Your task to perform on an android device: turn off picture-in-picture Image 0: 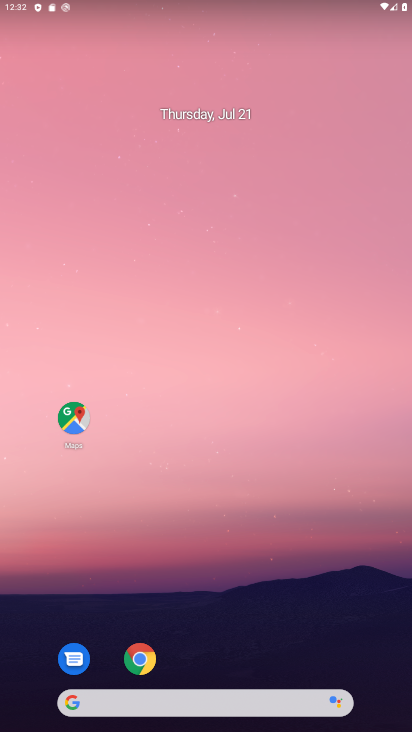
Step 0: click (138, 656)
Your task to perform on an android device: turn off picture-in-picture Image 1: 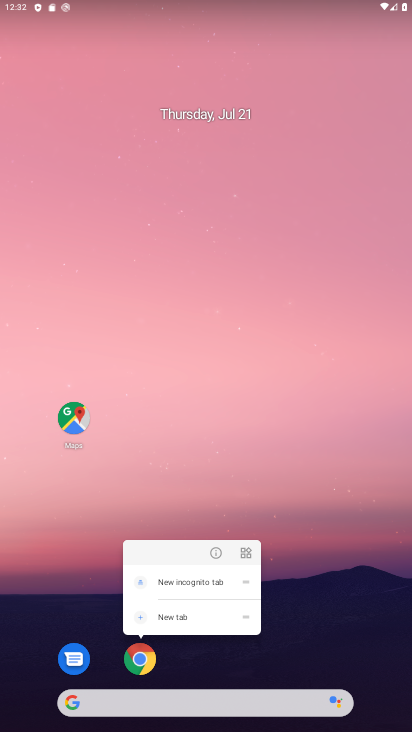
Step 1: click (215, 551)
Your task to perform on an android device: turn off picture-in-picture Image 2: 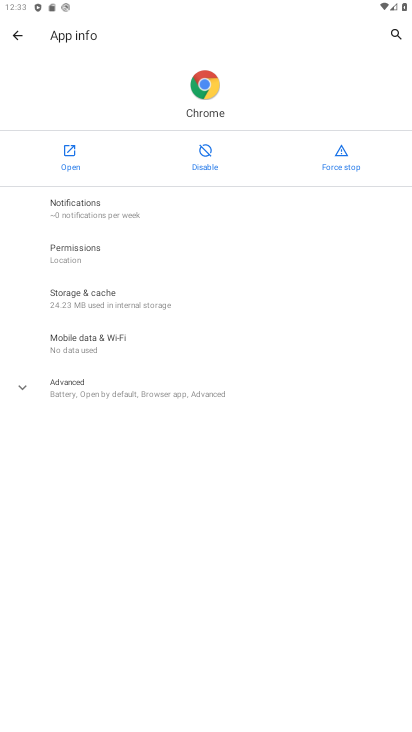
Step 2: click (108, 390)
Your task to perform on an android device: turn off picture-in-picture Image 3: 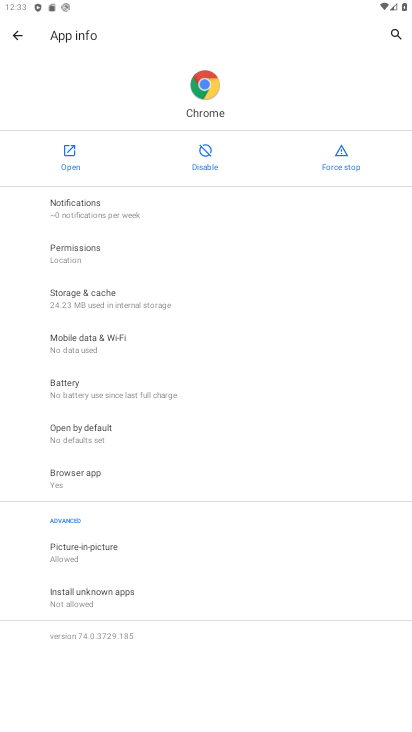
Step 3: click (73, 545)
Your task to perform on an android device: turn off picture-in-picture Image 4: 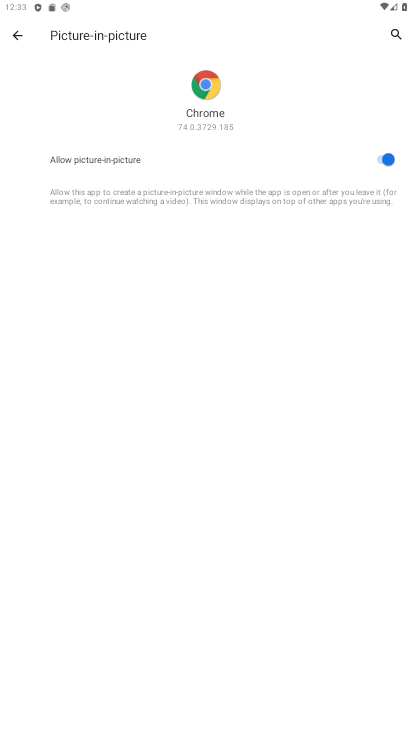
Step 4: click (381, 163)
Your task to perform on an android device: turn off picture-in-picture Image 5: 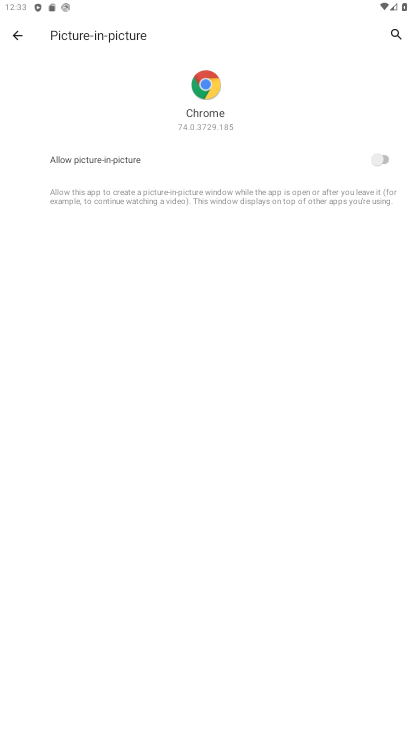
Step 5: task complete